Your task to perform on an android device: turn off sleep mode Image 0: 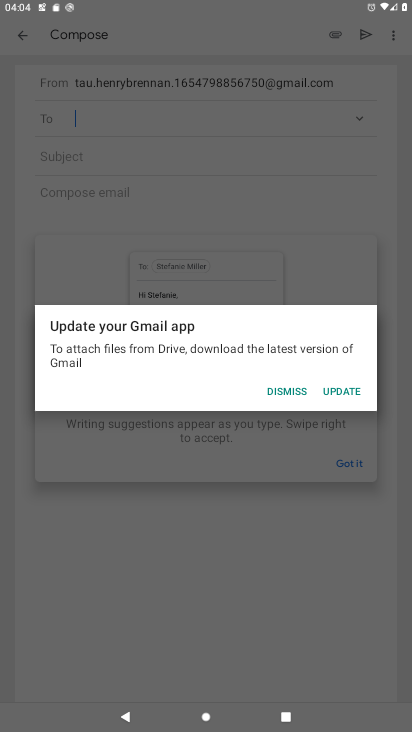
Step 0: press home button
Your task to perform on an android device: turn off sleep mode Image 1: 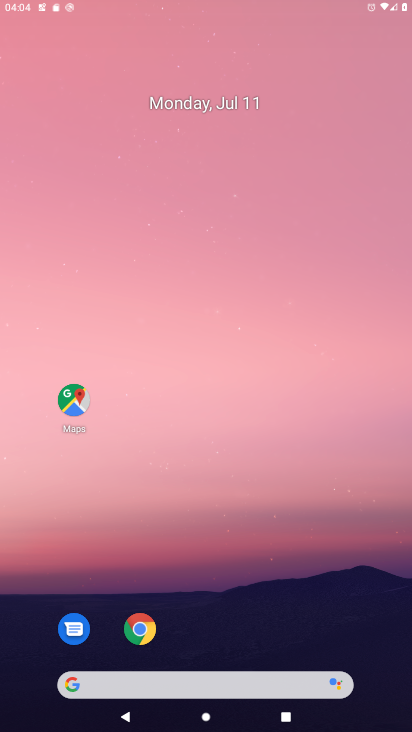
Step 1: drag from (166, 573) to (193, 49)
Your task to perform on an android device: turn off sleep mode Image 2: 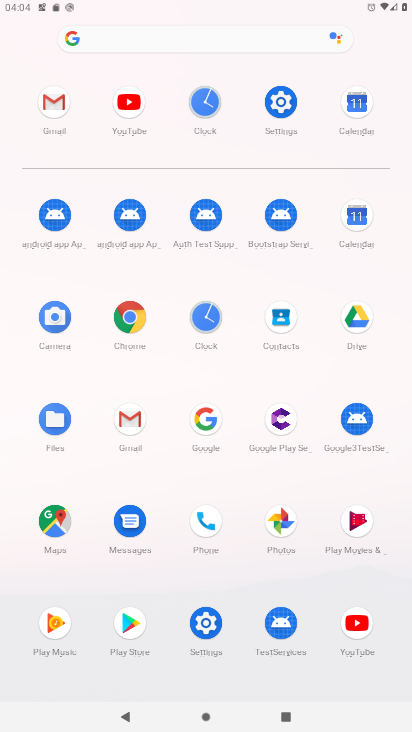
Step 2: click (297, 96)
Your task to perform on an android device: turn off sleep mode Image 3: 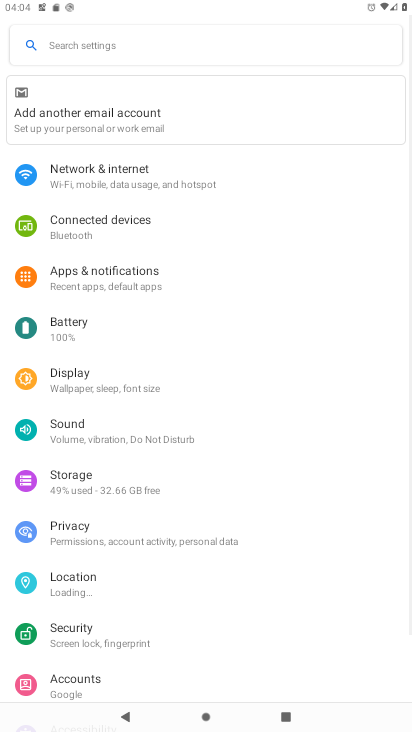
Step 3: click (113, 48)
Your task to perform on an android device: turn off sleep mode Image 4: 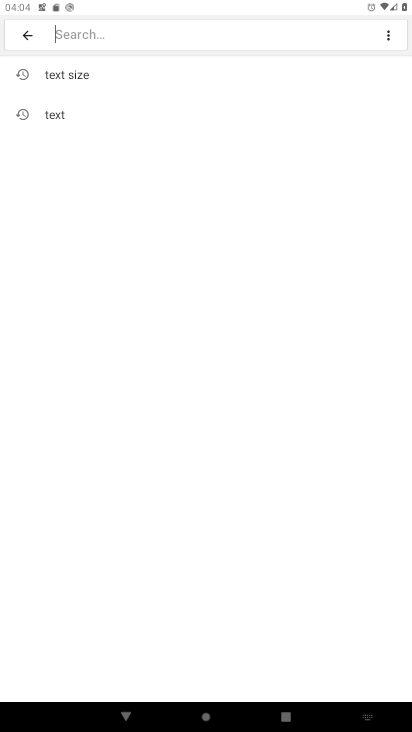
Step 4: type "sleep mode"
Your task to perform on an android device: turn off sleep mode Image 5: 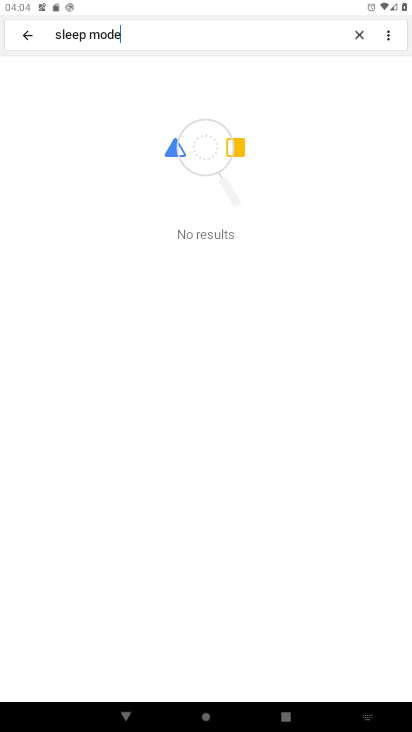
Step 5: task complete